Your task to perform on an android device: turn pop-ups on in chrome Image 0: 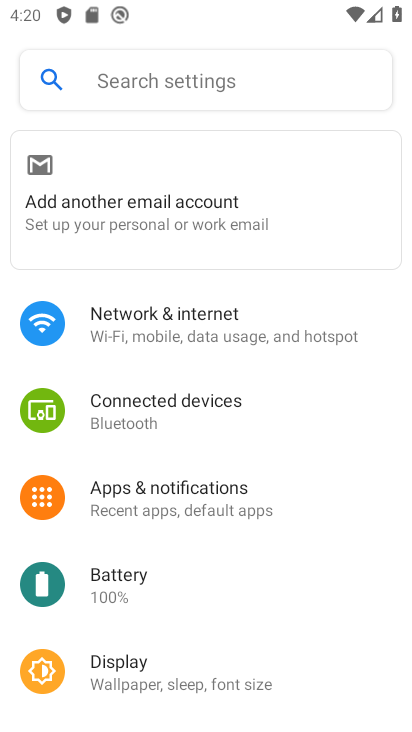
Step 0: press home button
Your task to perform on an android device: turn pop-ups on in chrome Image 1: 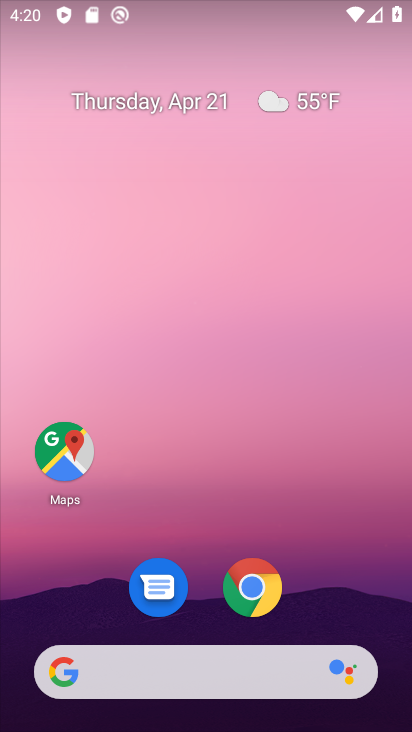
Step 1: drag from (351, 617) to (354, 84)
Your task to perform on an android device: turn pop-ups on in chrome Image 2: 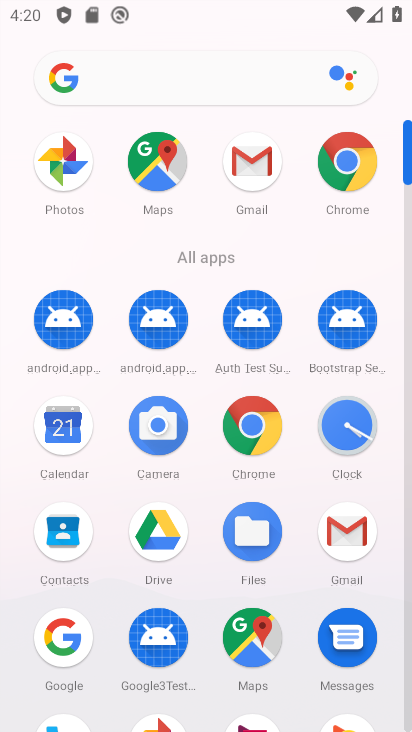
Step 2: click (254, 426)
Your task to perform on an android device: turn pop-ups on in chrome Image 3: 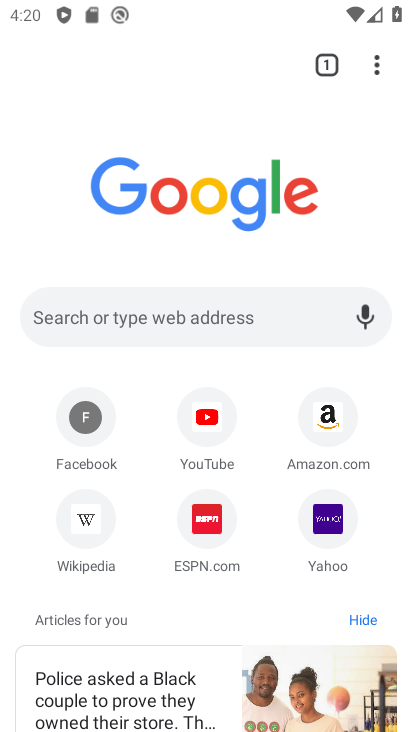
Step 3: drag from (374, 60) to (261, 537)
Your task to perform on an android device: turn pop-ups on in chrome Image 4: 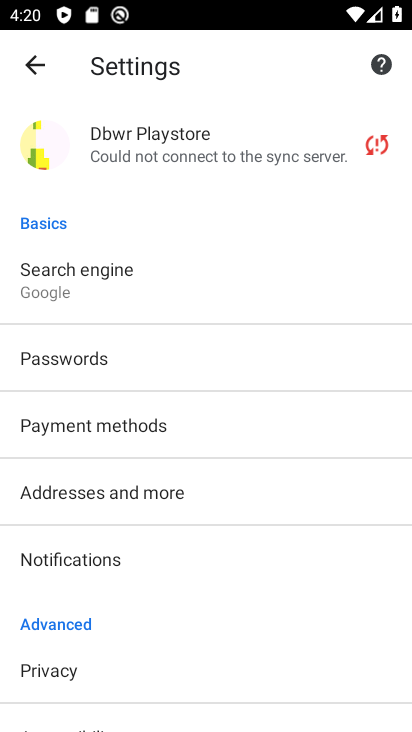
Step 4: drag from (254, 610) to (267, 253)
Your task to perform on an android device: turn pop-ups on in chrome Image 5: 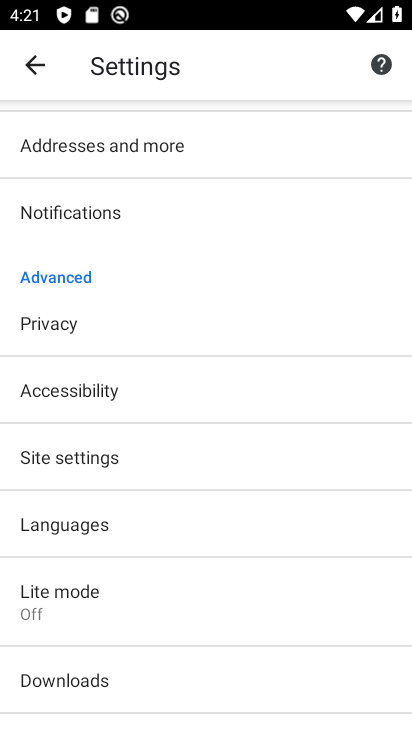
Step 5: click (59, 458)
Your task to perform on an android device: turn pop-ups on in chrome Image 6: 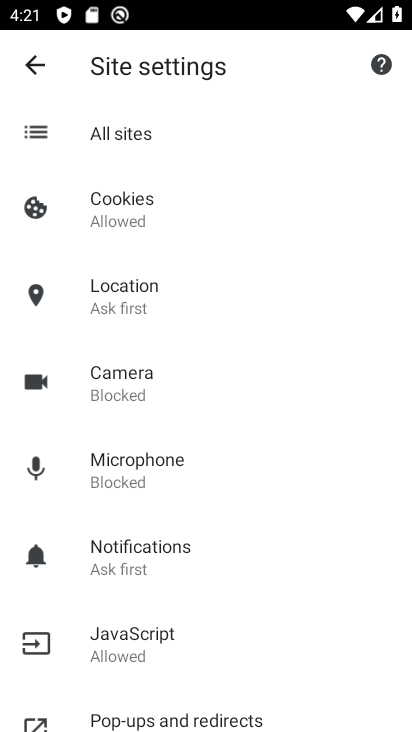
Step 6: drag from (327, 484) to (324, 329)
Your task to perform on an android device: turn pop-ups on in chrome Image 7: 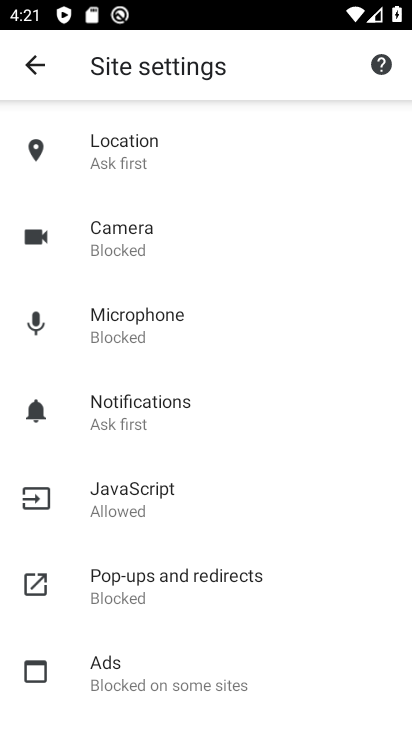
Step 7: click (181, 571)
Your task to perform on an android device: turn pop-ups on in chrome Image 8: 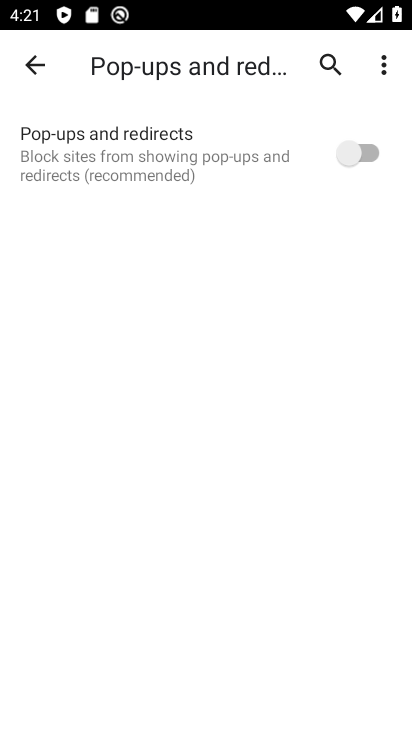
Step 8: click (360, 143)
Your task to perform on an android device: turn pop-ups on in chrome Image 9: 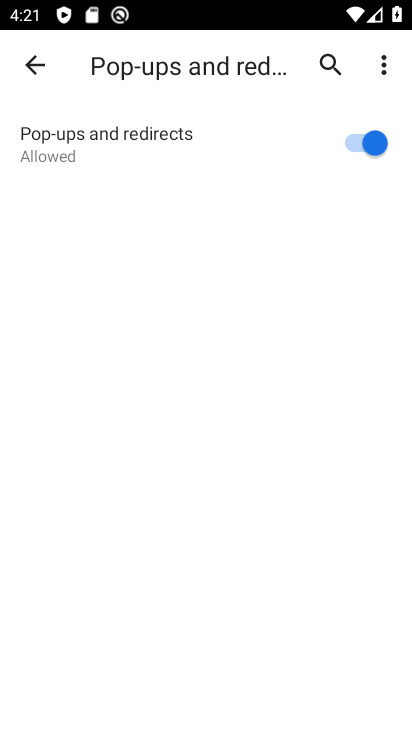
Step 9: task complete